Your task to perform on an android device: Open calendar and show me the third week of next month Image 0: 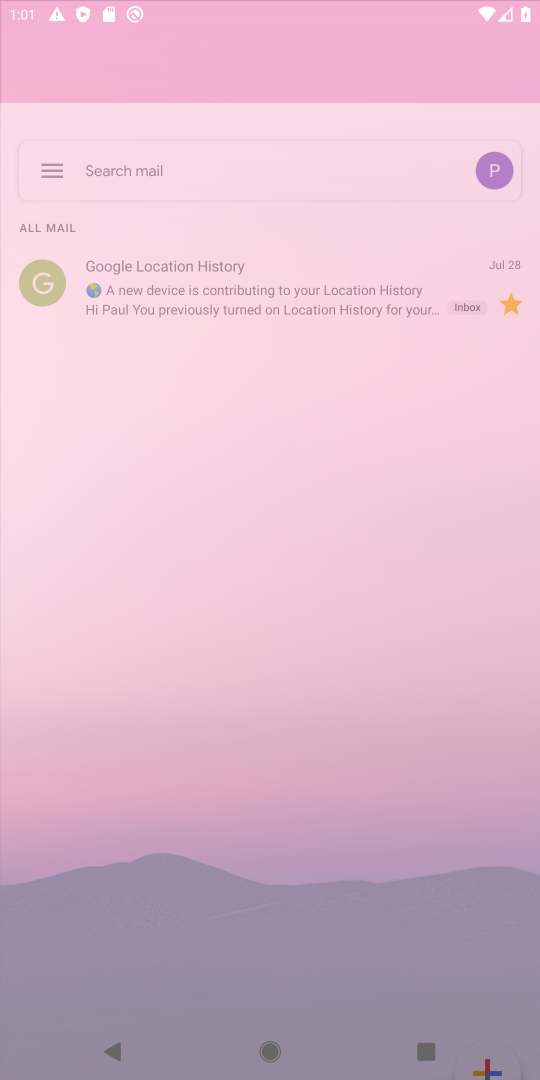
Step 0: press home button
Your task to perform on an android device: Open calendar and show me the third week of next month Image 1: 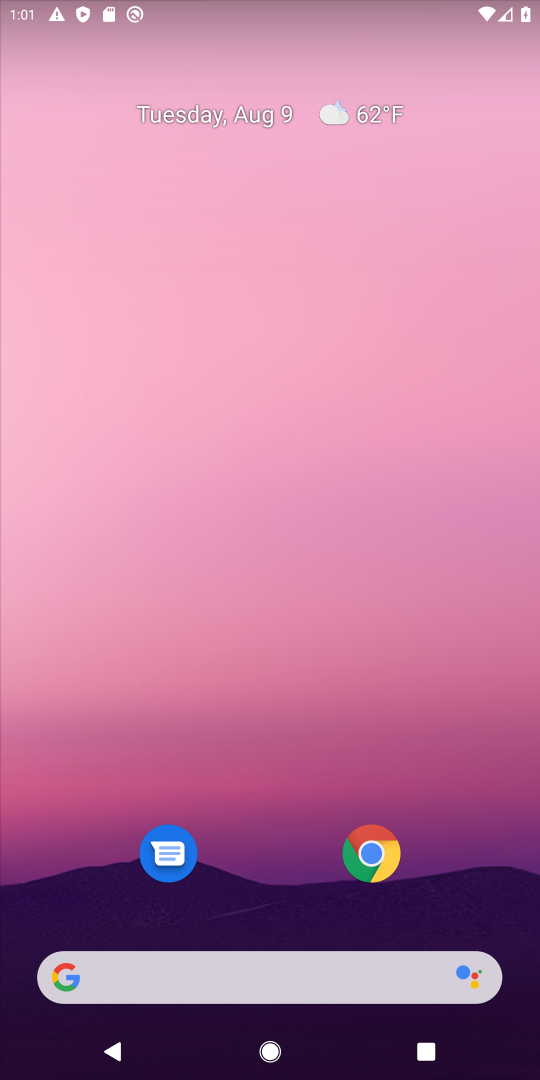
Step 1: drag from (280, 877) to (273, 10)
Your task to perform on an android device: Open calendar and show me the third week of next month Image 2: 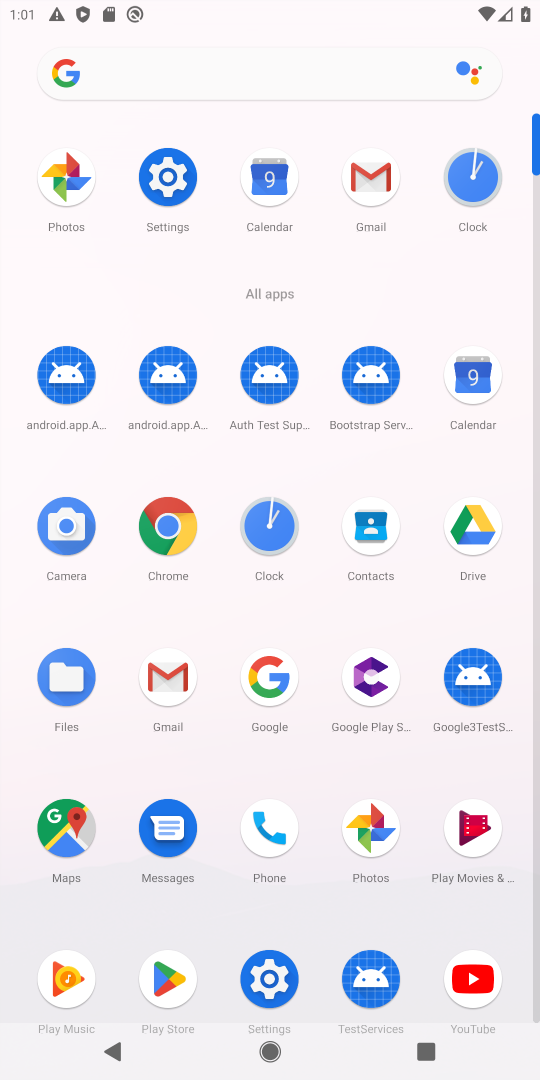
Step 2: click (469, 388)
Your task to perform on an android device: Open calendar and show me the third week of next month Image 3: 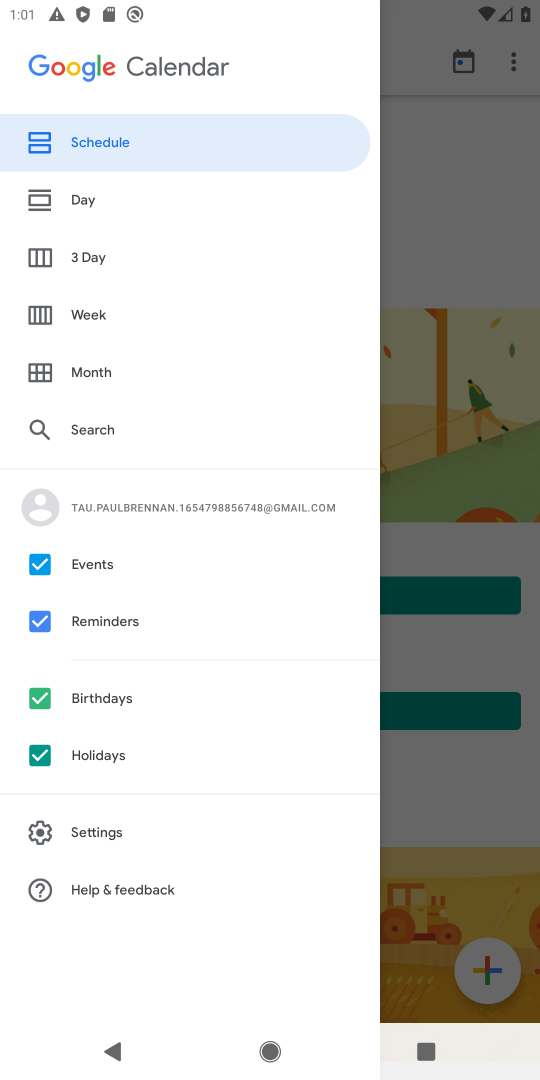
Step 3: click (79, 370)
Your task to perform on an android device: Open calendar and show me the third week of next month Image 4: 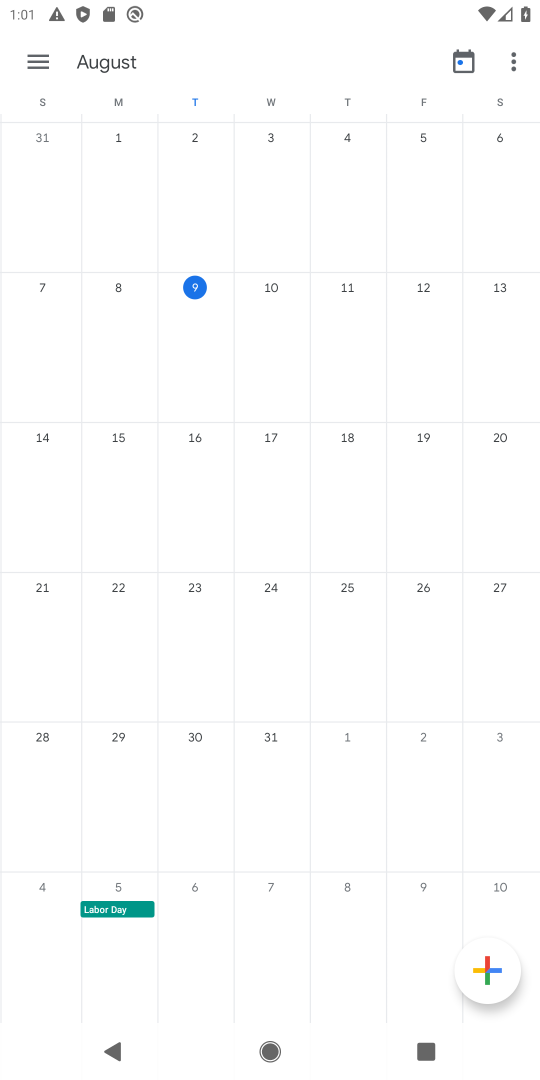
Step 4: task complete